Your task to perform on an android device: Show me popular games on the Play Store Image 0: 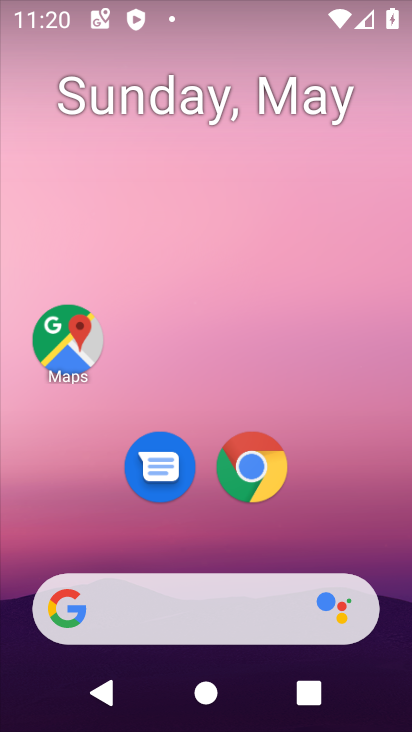
Step 0: drag from (398, 551) to (389, 715)
Your task to perform on an android device: Show me popular games on the Play Store Image 1: 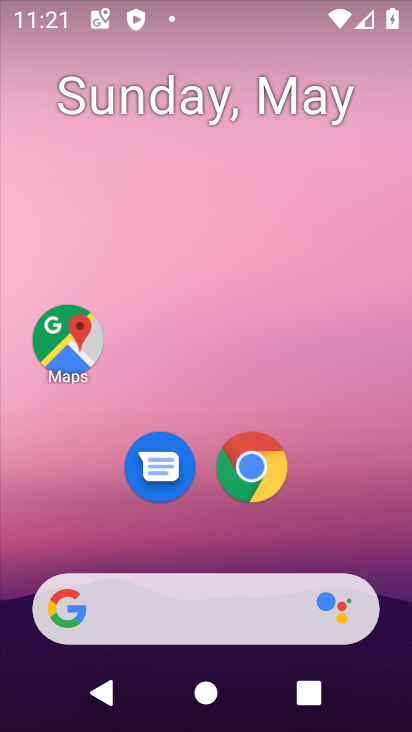
Step 1: drag from (342, 530) to (259, 35)
Your task to perform on an android device: Show me popular games on the Play Store Image 2: 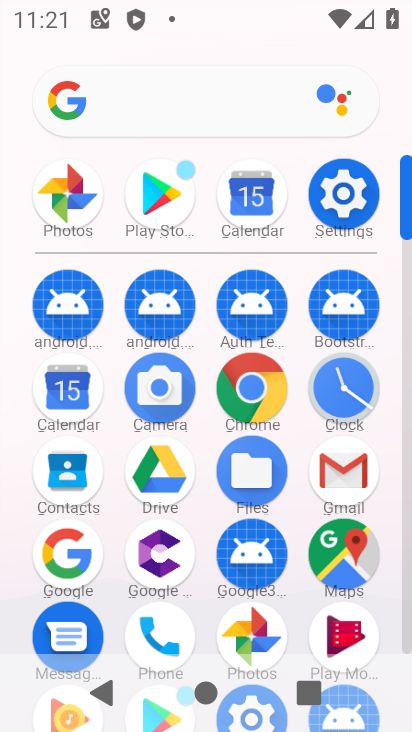
Step 2: click (156, 218)
Your task to perform on an android device: Show me popular games on the Play Store Image 3: 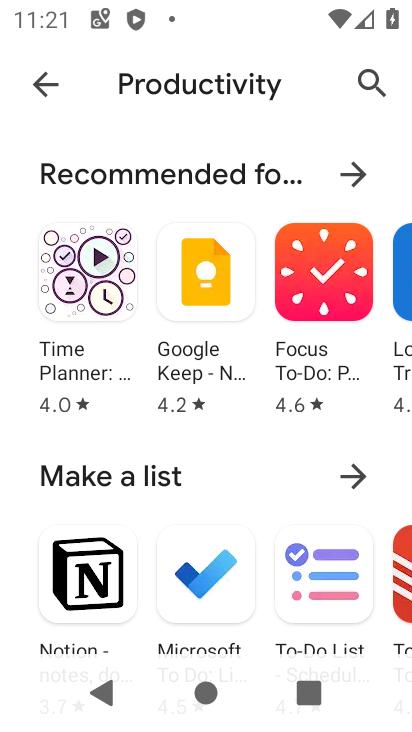
Step 3: click (48, 87)
Your task to perform on an android device: Show me popular games on the Play Store Image 4: 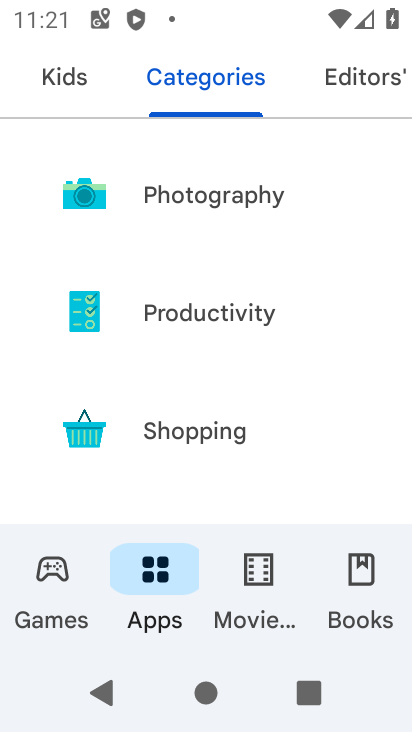
Step 4: click (64, 579)
Your task to perform on an android device: Show me popular games on the Play Store Image 5: 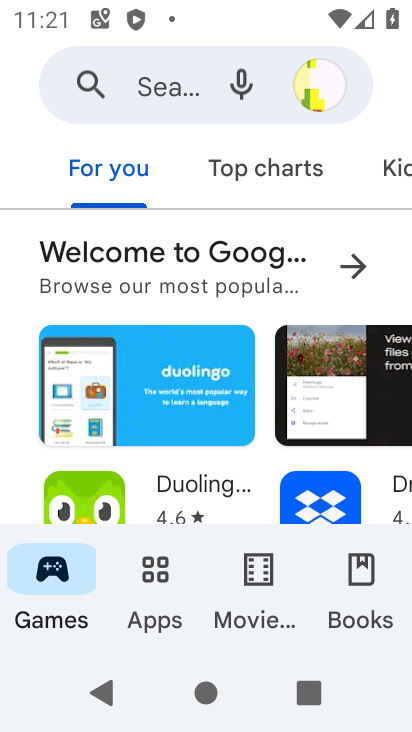
Step 5: drag from (249, 437) to (221, 125)
Your task to perform on an android device: Show me popular games on the Play Store Image 6: 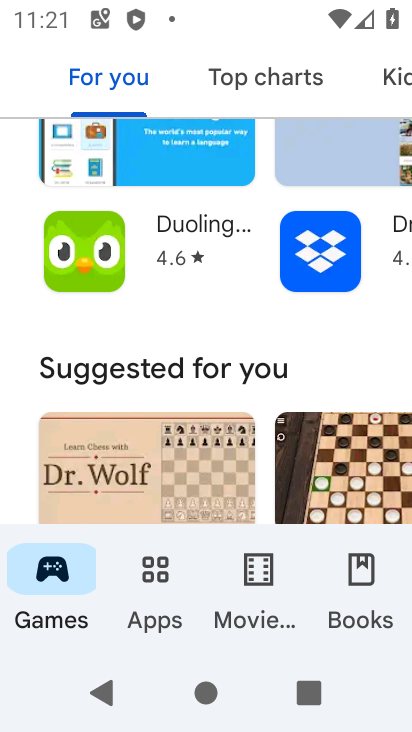
Step 6: drag from (221, 433) to (216, 155)
Your task to perform on an android device: Show me popular games on the Play Store Image 7: 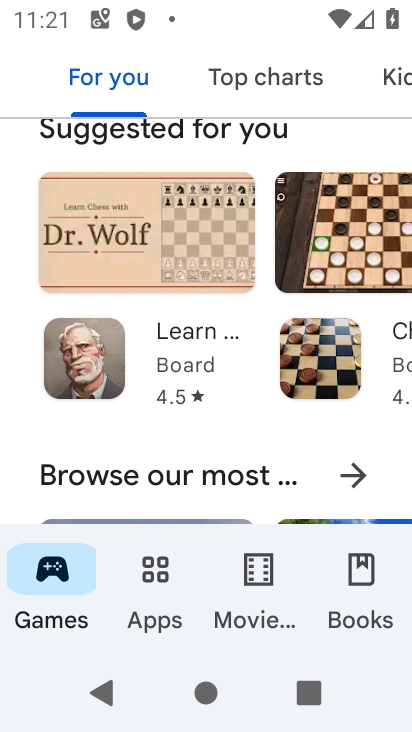
Step 7: drag from (207, 446) to (221, 185)
Your task to perform on an android device: Show me popular games on the Play Store Image 8: 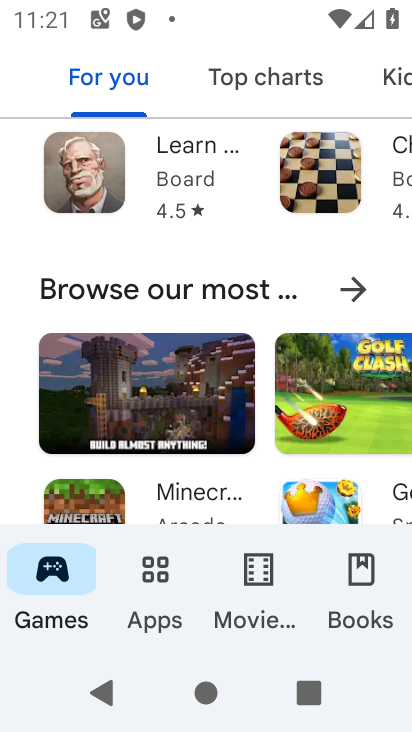
Step 8: click (243, 292)
Your task to perform on an android device: Show me popular games on the Play Store Image 9: 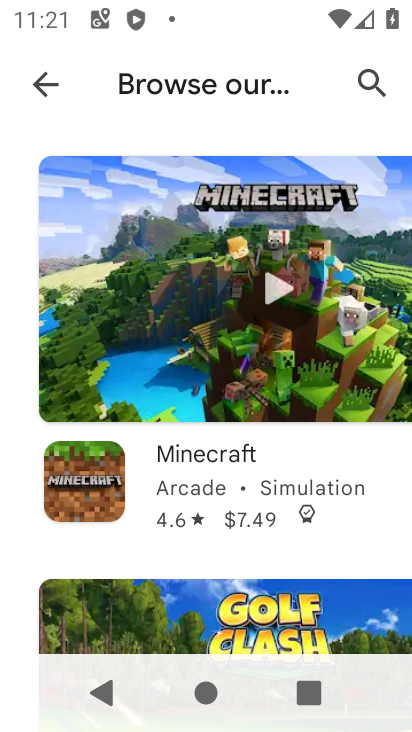
Step 9: task complete